Your task to perform on an android device: What's the weather? Image 0: 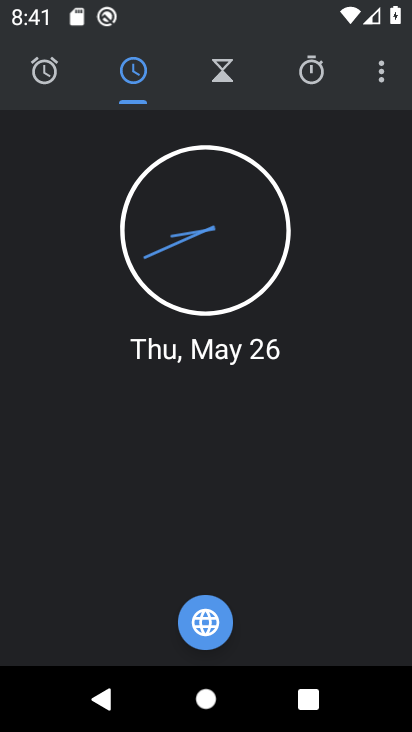
Step 0: press home button
Your task to perform on an android device: What's the weather? Image 1: 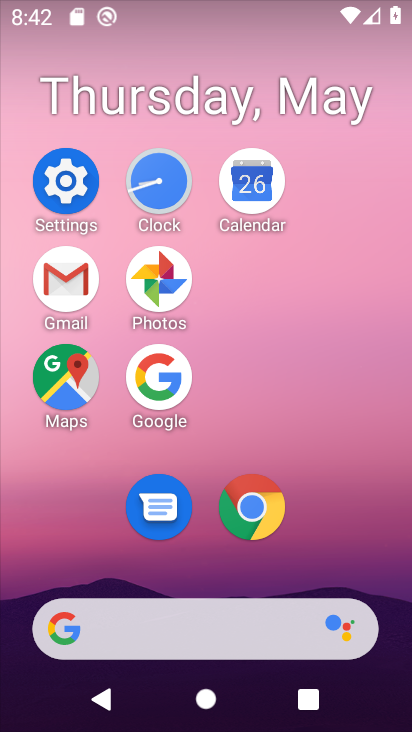
Step 1: click (159, 353)
Your task to perform on an android device: What's the weather? Image 2: 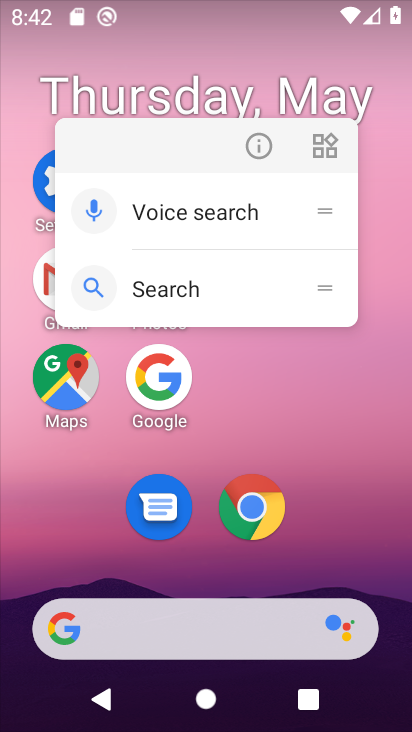
Step 2: click (164, 385)
Your task to perform on an android device: What's the weather? Image 3: 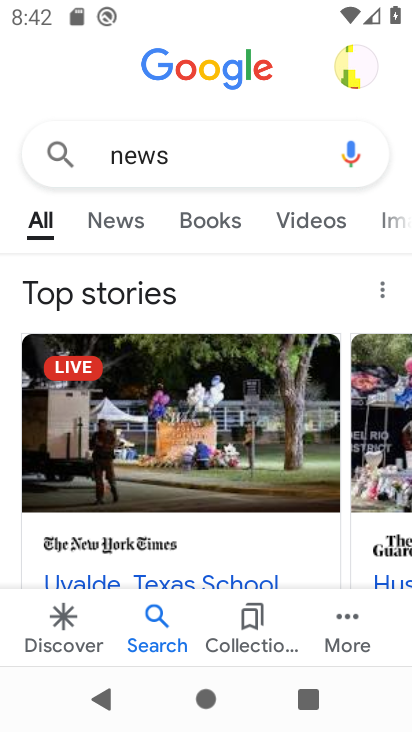
Step 3: click (224, 168)
Your task to perform on an android device: What's the weather? Image 4: 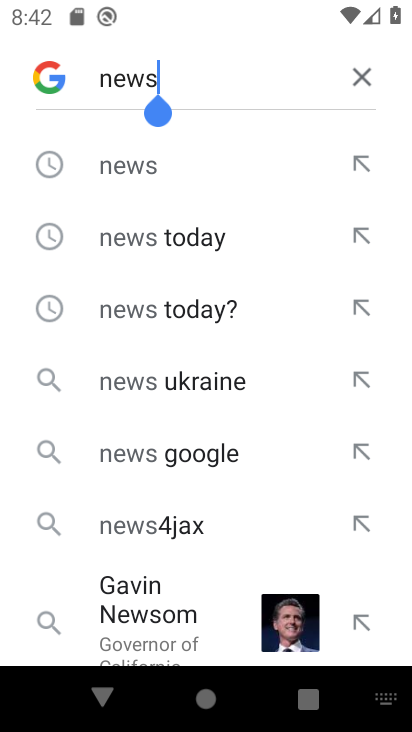
Step 4: click (312, 91)
Your task to perform on an android device: What's the weather? Image 5: 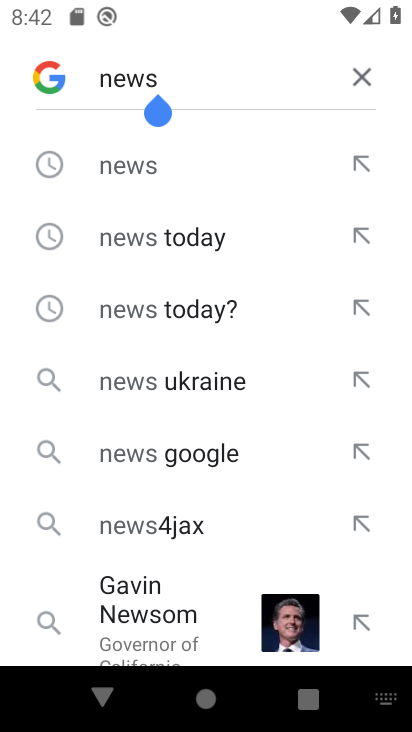
Step 5: click (397, 88)
Your task to perform on an android device: What's the weather? Image 6: 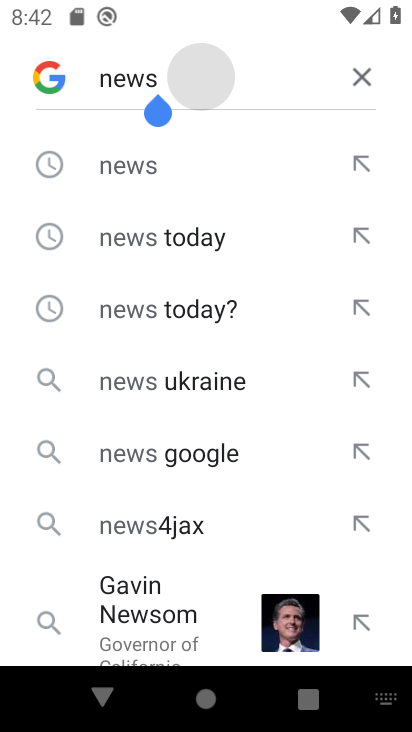
Step 6: click (381, 75)
Your task to perform on an android device: What's the weather? Image 7: 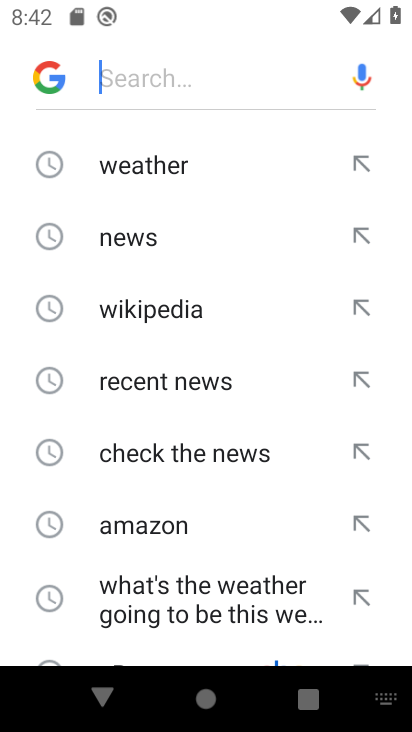
Step 7: click (200, 174)
Your task to perform on an android device: What's the weather? Image 8: 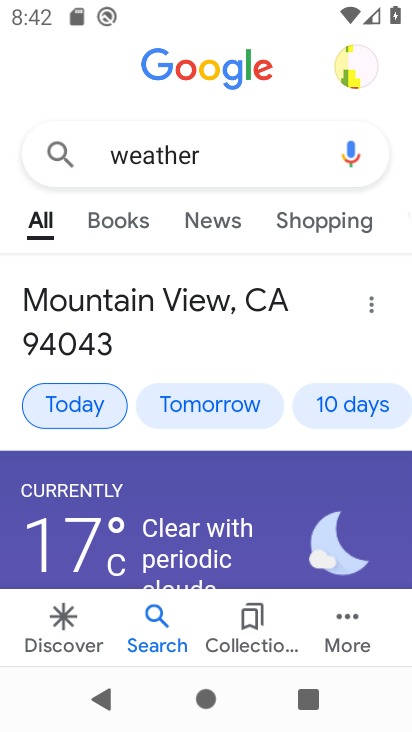
Step 8: task complete